Your task to perform on an android device: Open Youtube and go to the subscriptions tab Image 0: 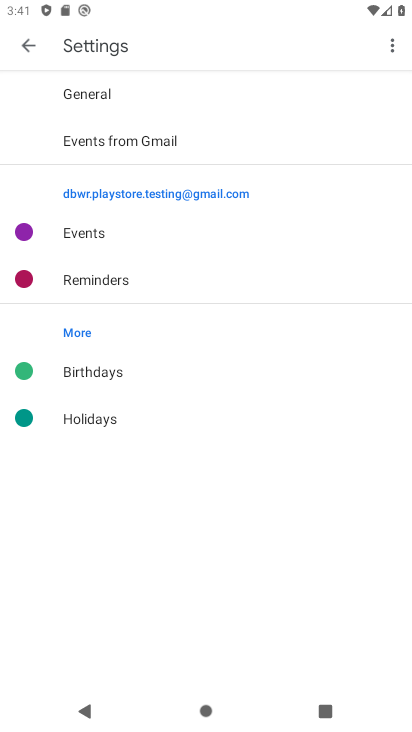
Step 0: press home button
Your task to perform on an android device: Open Youtube and go to the subscriptions tab Image 1: 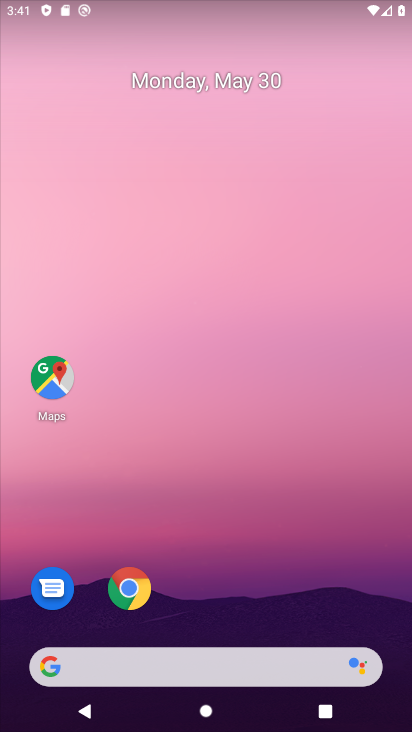
Step 1: click (324, 89)
Your task to perform on an android device: Open Youtube and go to the subscriptions tab Image 2: 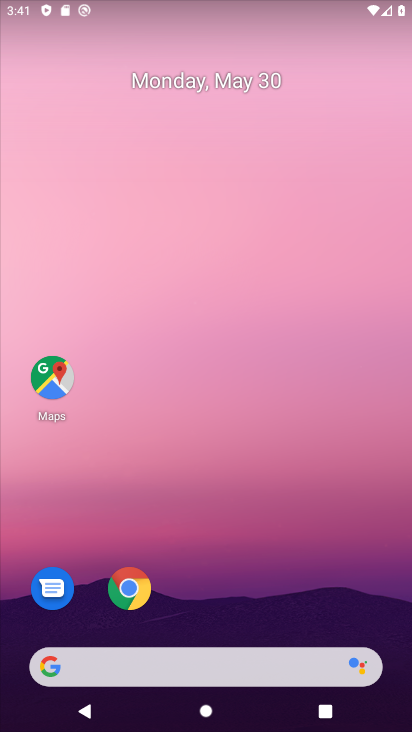
Step 2: drag from (381, 622) to (337, 87)
Your task to perform on an android device: Open Youtube and go to the subscriptions tab Image 3: 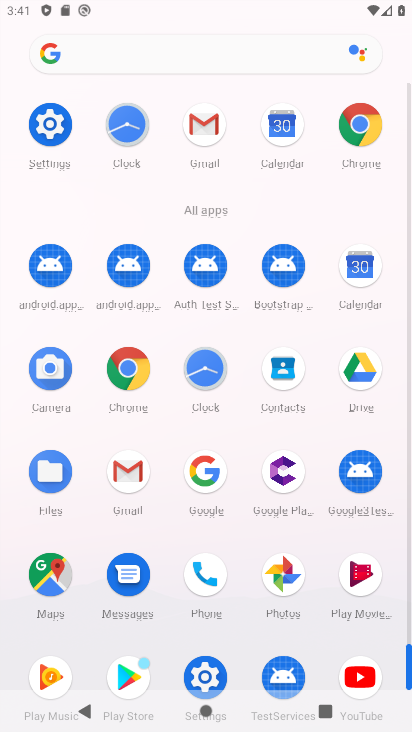
Step 3: click (359, 677)
Your task to perform on an android device: Open Youtube and go to the subscriptions tab Image 4: 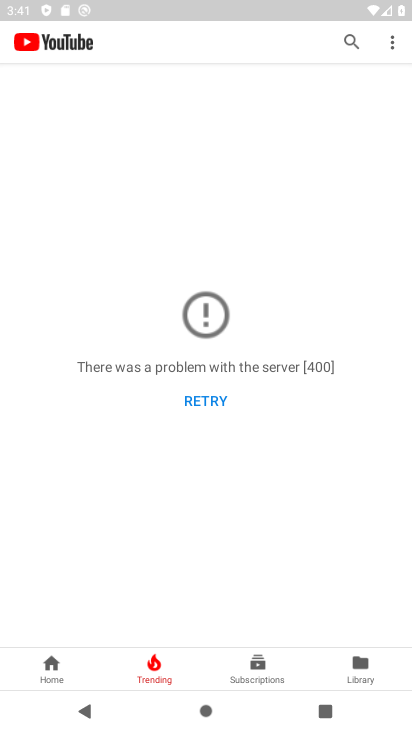
Step 4: click (260, 666)
Your task to perform on an android device: Open Youtube and go to the subscriptions tab Image 5: 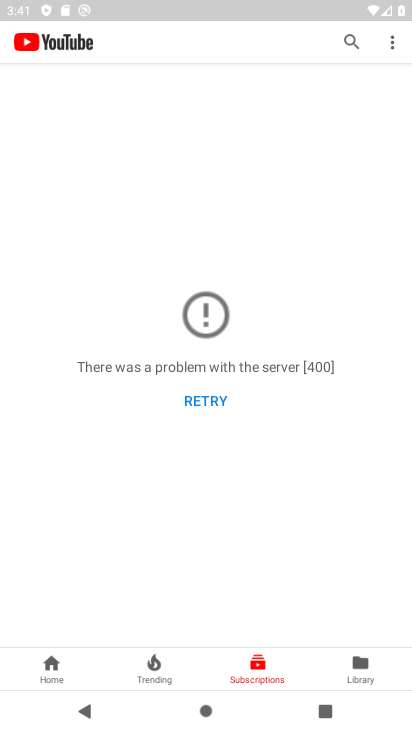
Step 5: task complete